Your task to perform on an android device: What's the weather? Image 0: 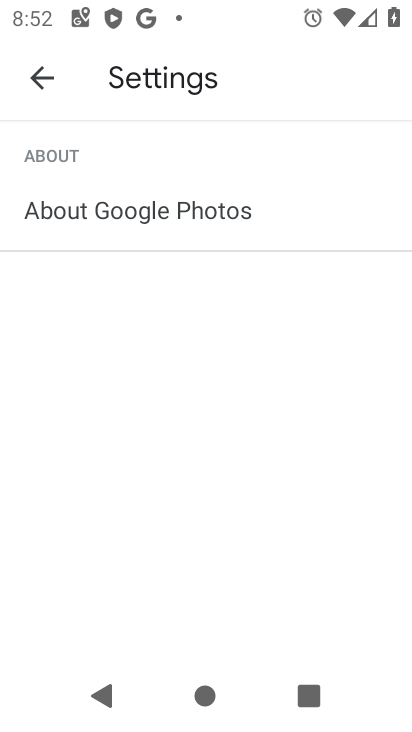
Step 0: press home button
Your task to perform on an android device: What's the weather? Image 1: 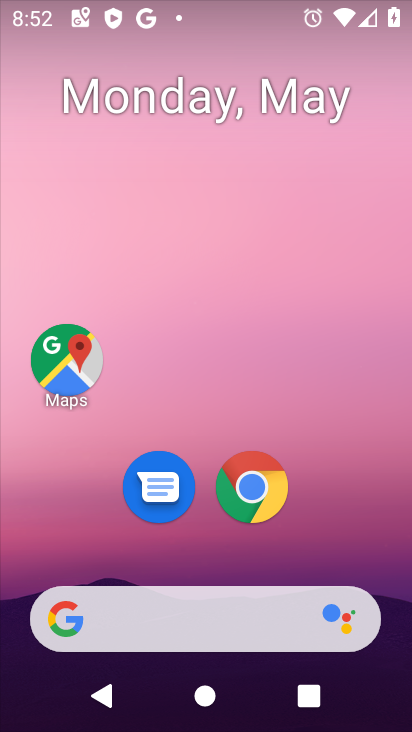
Step 1: click (245, 627)
Your task to perform on an android device: What's the weather? Image 2: 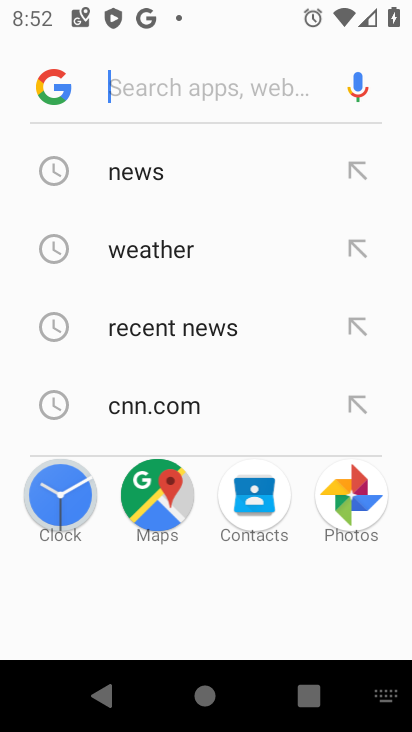
Step 2: click (238, 231)
Your task to perform on an android device: What's the weather? Image 3: 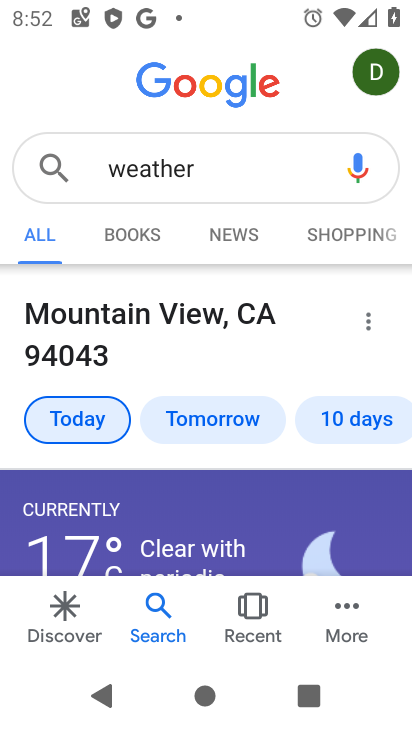
Step 3: task complete